Your task to perform on an android device: Clear all items from cart on amazon. Search for "apple airpods" on amazon, select the first entry, and add it to the cart. Image 0: 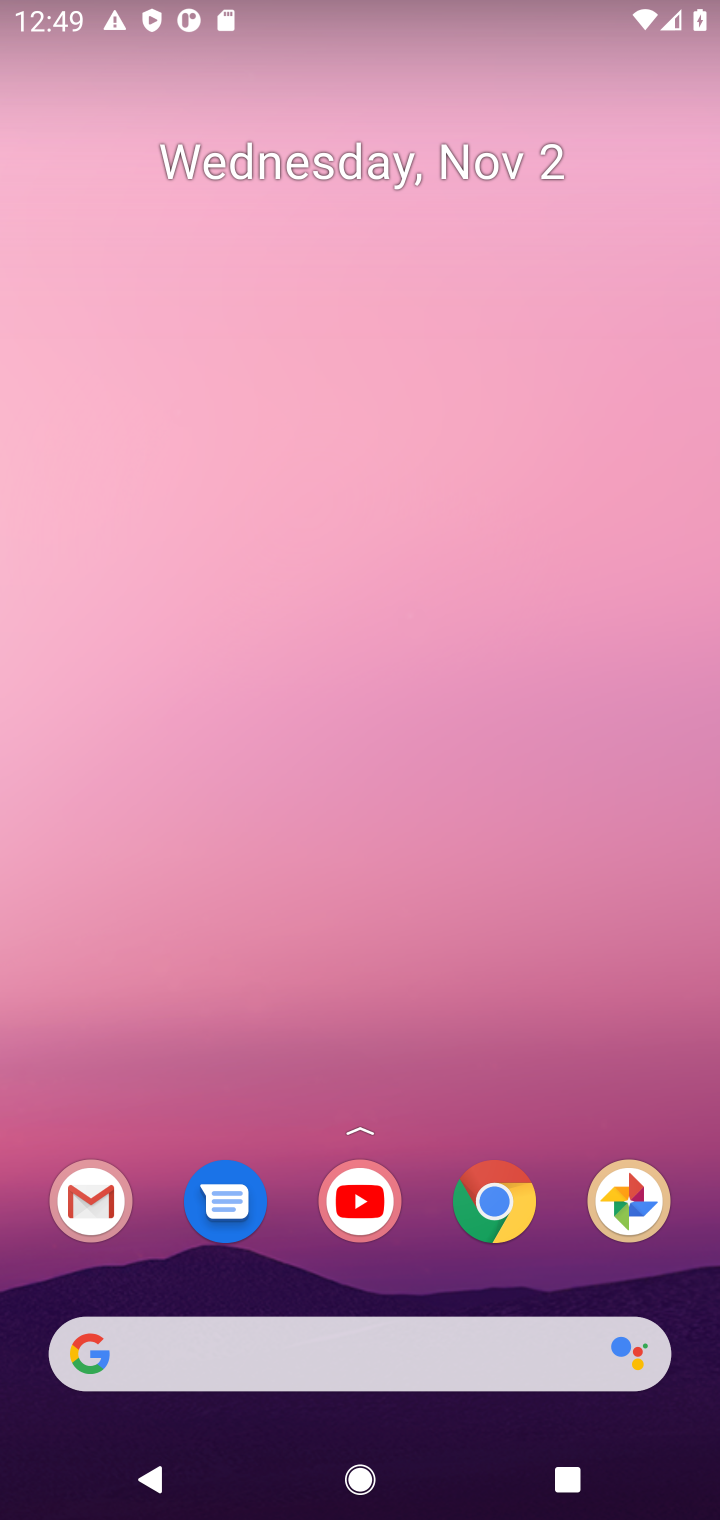
Step 0: drag from (332, 1070) to (338, 217)
Your task to perform on an android device: Clear all items from cart on amazon. Search for "apple airpods" on amazon, select the first entry, and add it to the cart. Image 1: 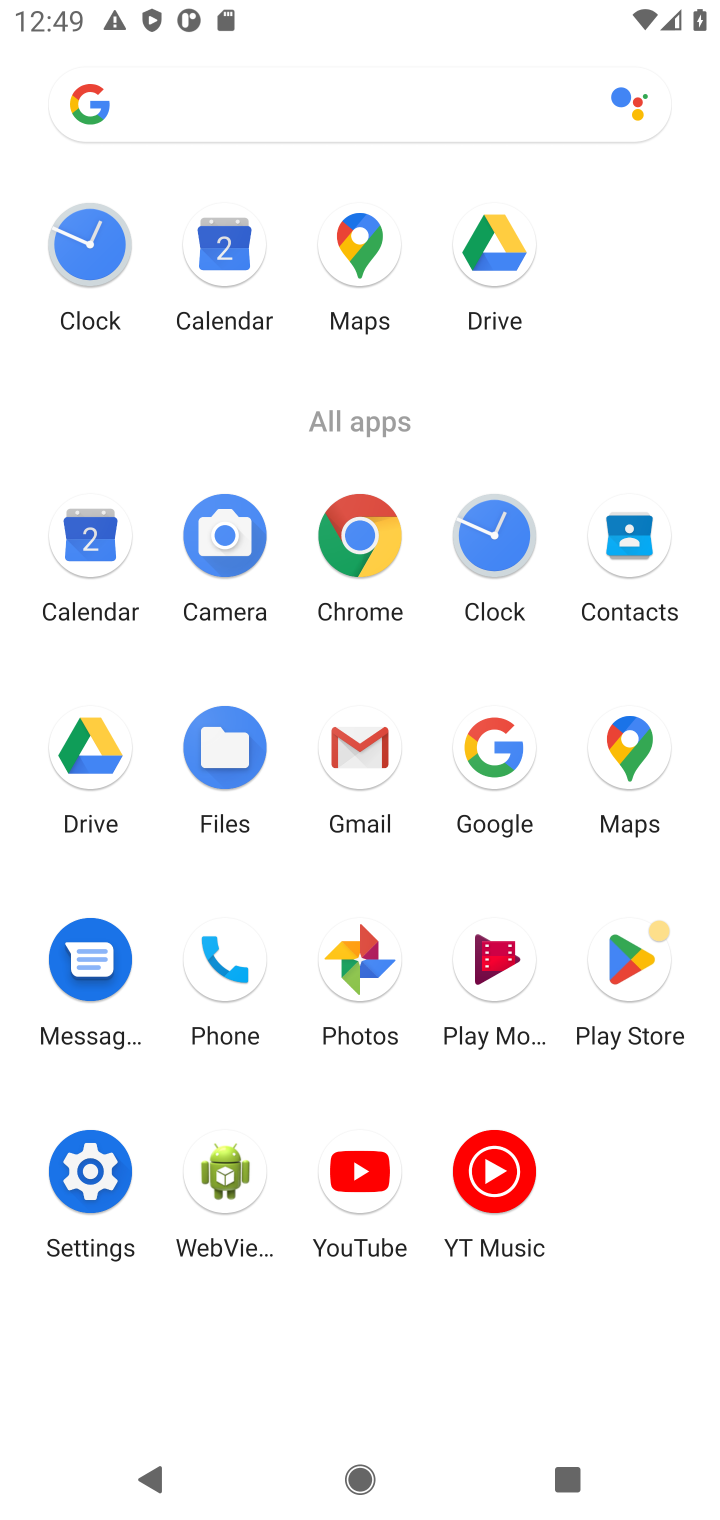
Step 1: click (470, 769)
Your task to perform on an android device: Clear all items from cart on amazon. Search for "apple airpods" on amazon, select the first entry, and add it to the cart. Image 2: 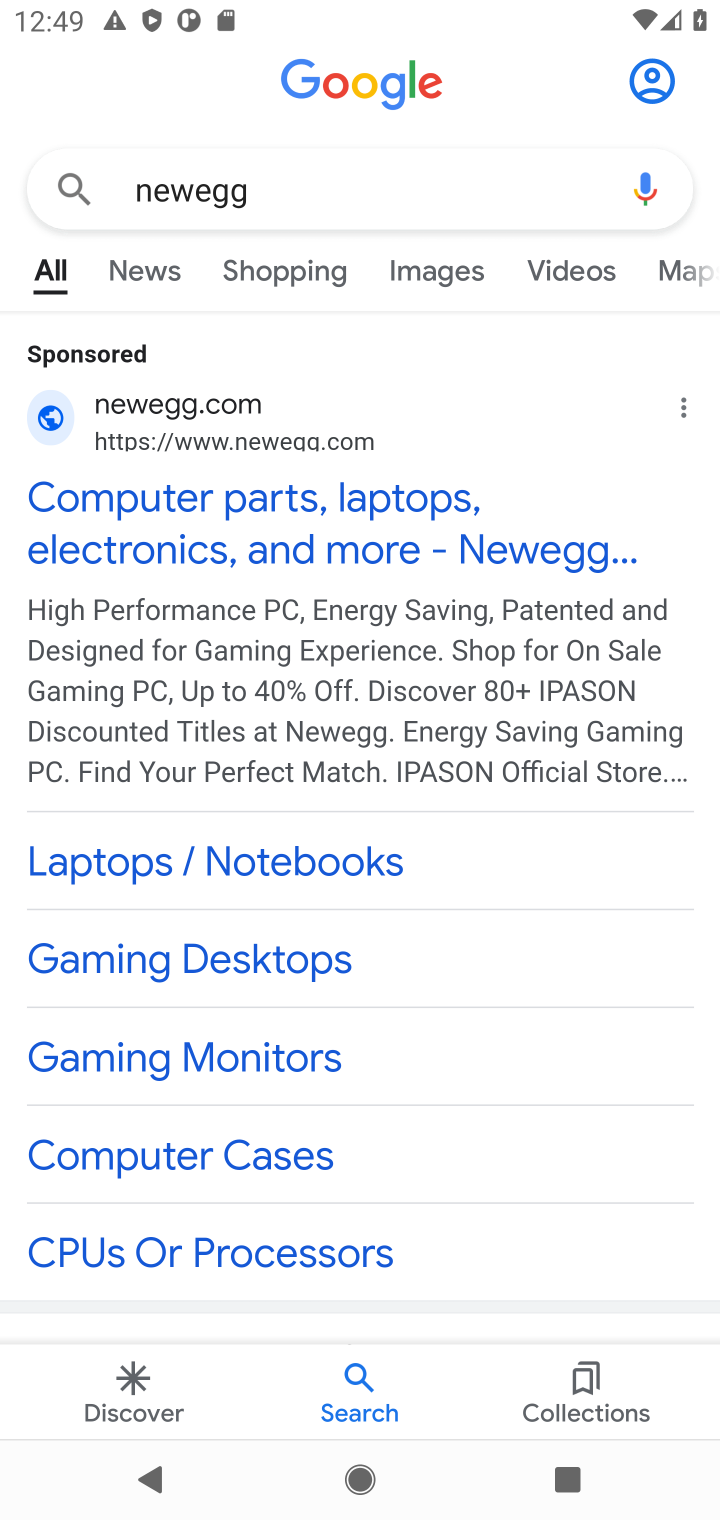
Step 2: click (278, 191)
Your task to perform on an android device: Clear all items from cart on amazon. Search for "apple airpods" on amazon, select the first entry, and add it to the cart. Image 3: 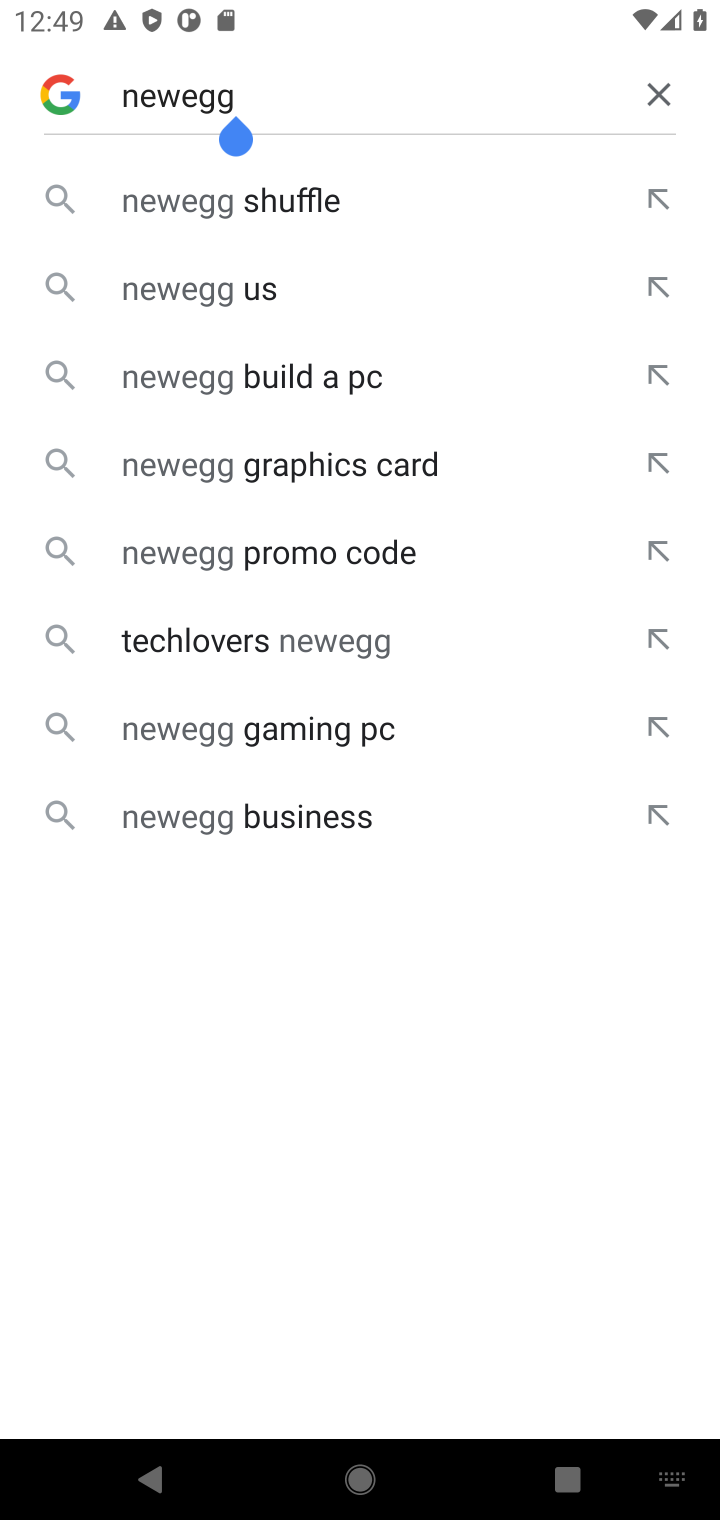
Step 3: click (657, 104)
Your task to perform on an android device: Clear all items from cart on amazon. Search for "apple airpods" on amazon, select the first entry, and add it to the cart. Image 4: 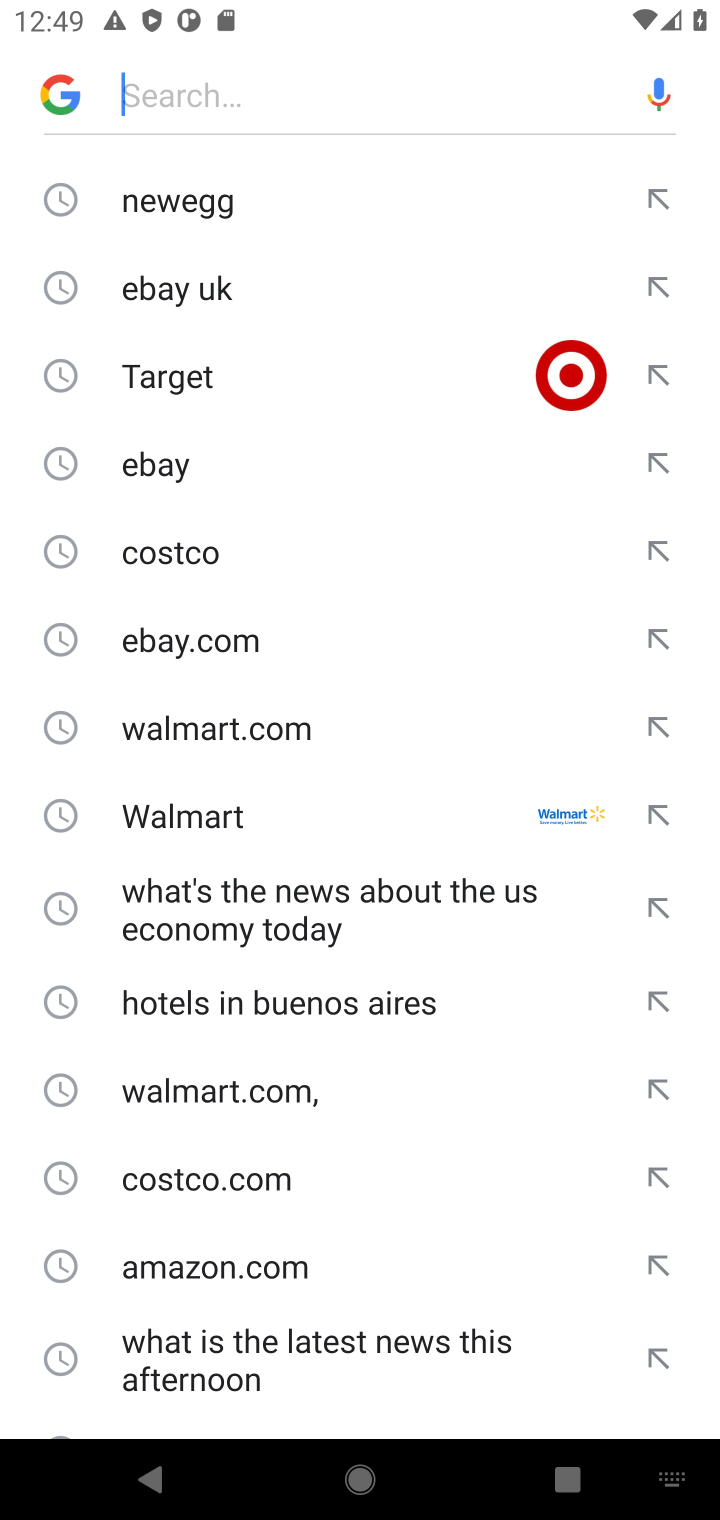
Step 4: click (196, 1275)
Your task to perform on an android device: Clear all items from cart on amazon. Search for "apple airpods" on amazon, select the first entry, and add it to the cart. Image 5: 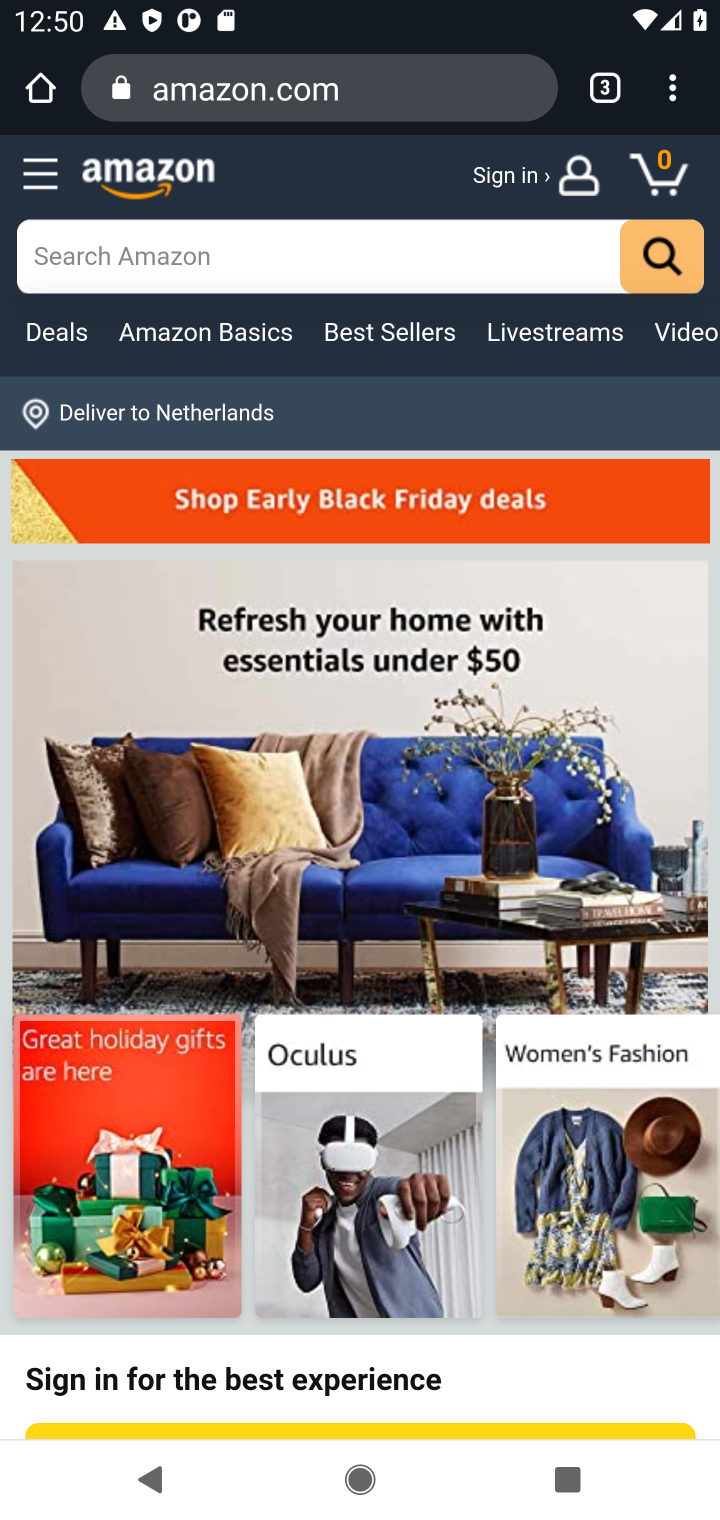
Step 5: click (162, 247)
Your task to perform on an android device: Clear all items from cart on amazon. Search for "apple airpods" on amazon, select the first entry, and add it to the cart. Image 6: 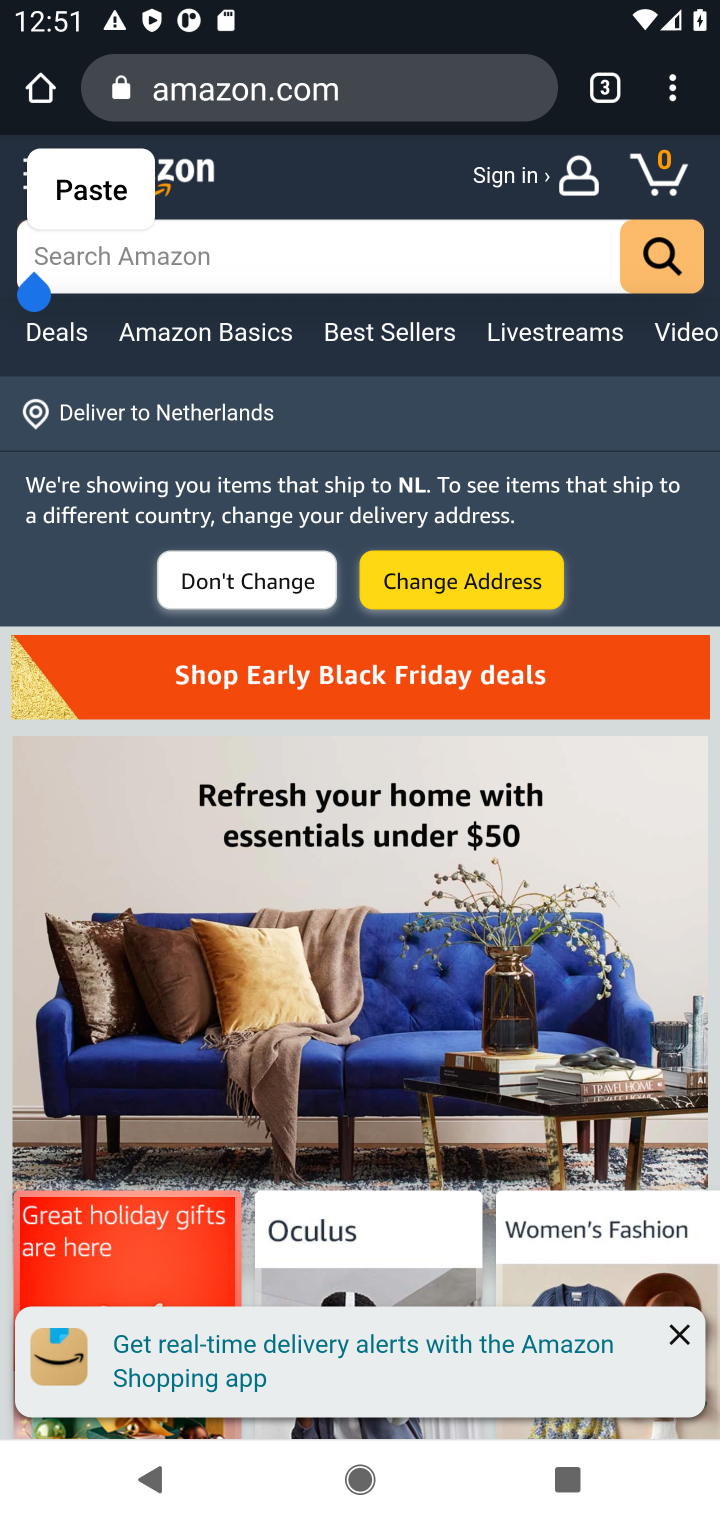
Step 6: click (93, 253)
Your task to perform on an android device: Clear all items from cart on amazon. Search for "apple airpods" on amazon, select the first entry, and add it to the cart. Image 7: 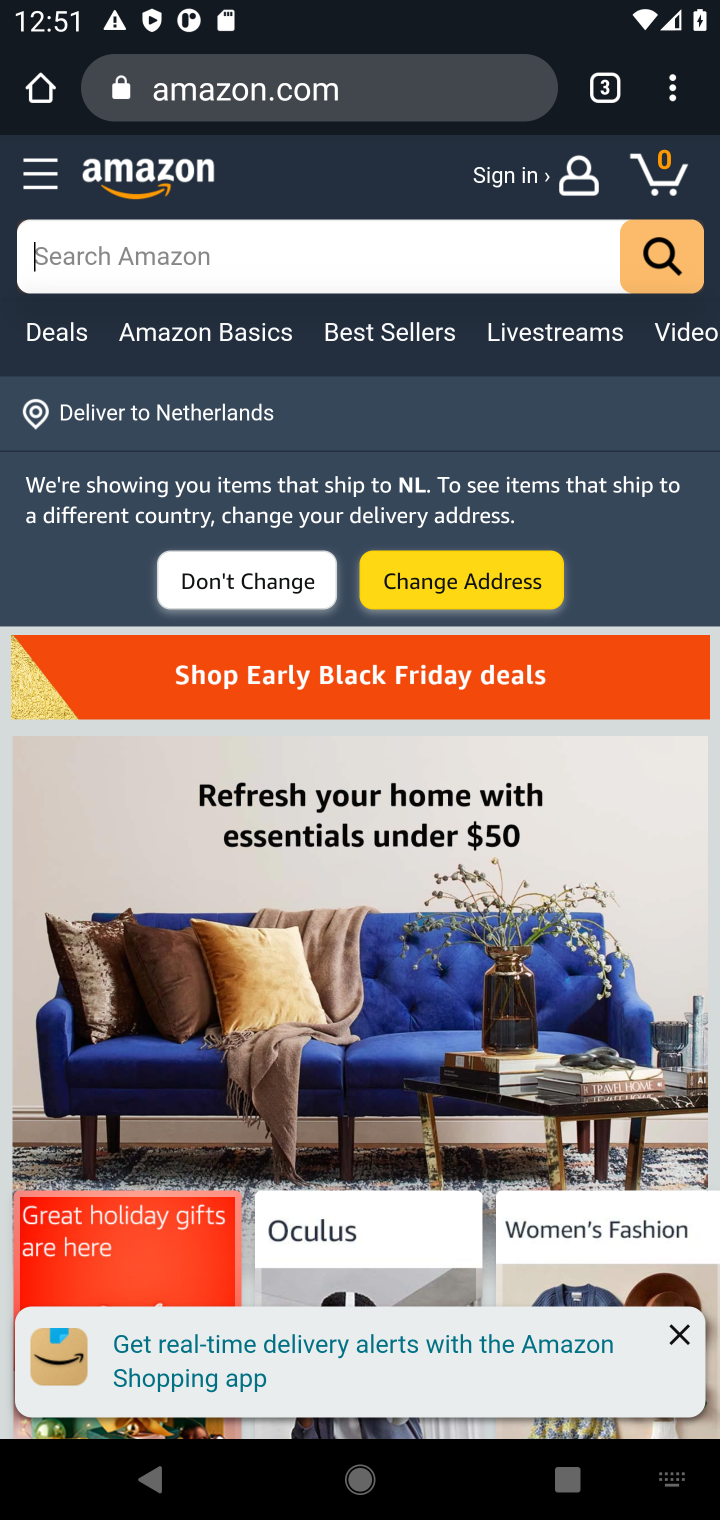
Step 7: type "apple airpods"
Your task to perform on an android device: Clear all items from cart on amazon. Search for "apple airpods" on amazon, select the first entry, and add it to the cart. Image 8: 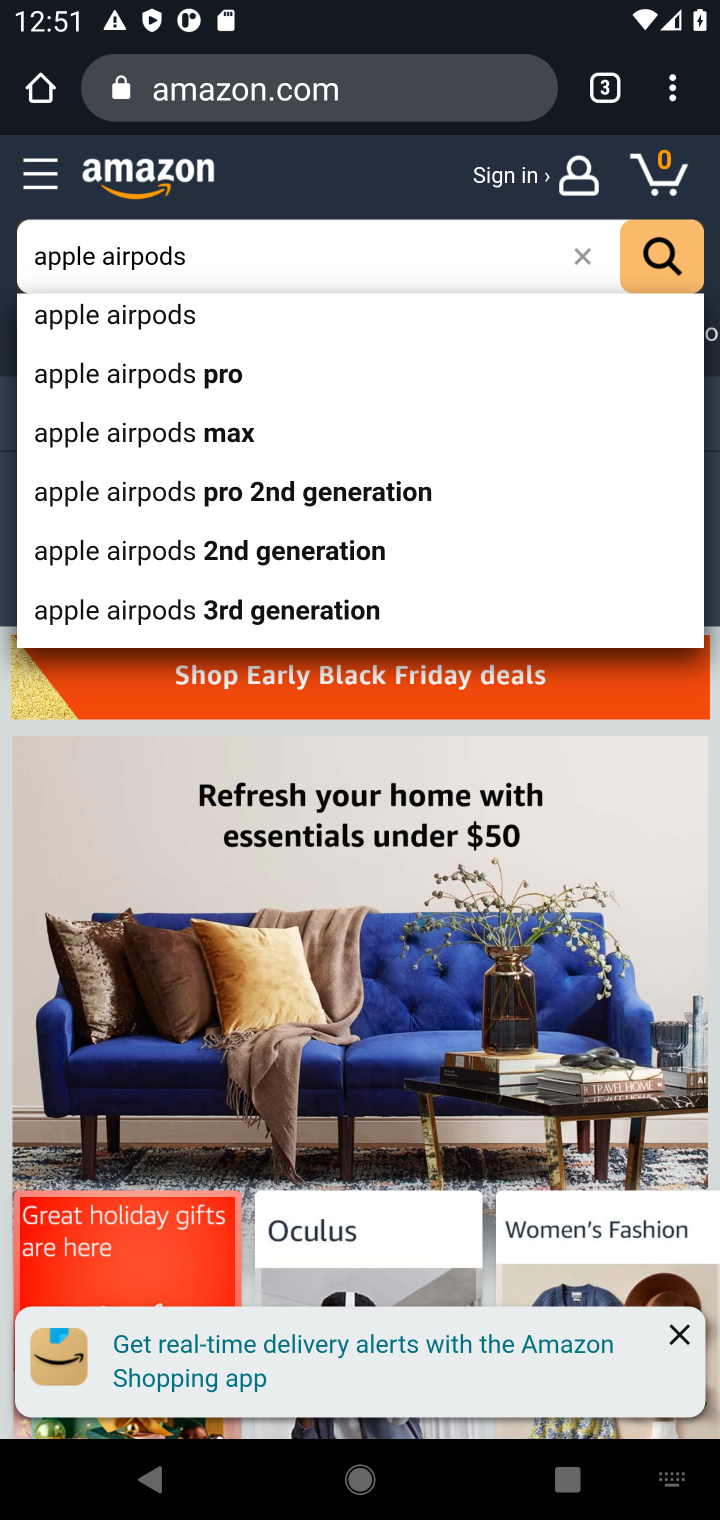
Step 8: click (151, 331)
Your task to perform on an android device: Clear all items from cart on amazon. Search for "apple airpods" on amazon, select the first entry, and add it to the cart. Image 9: 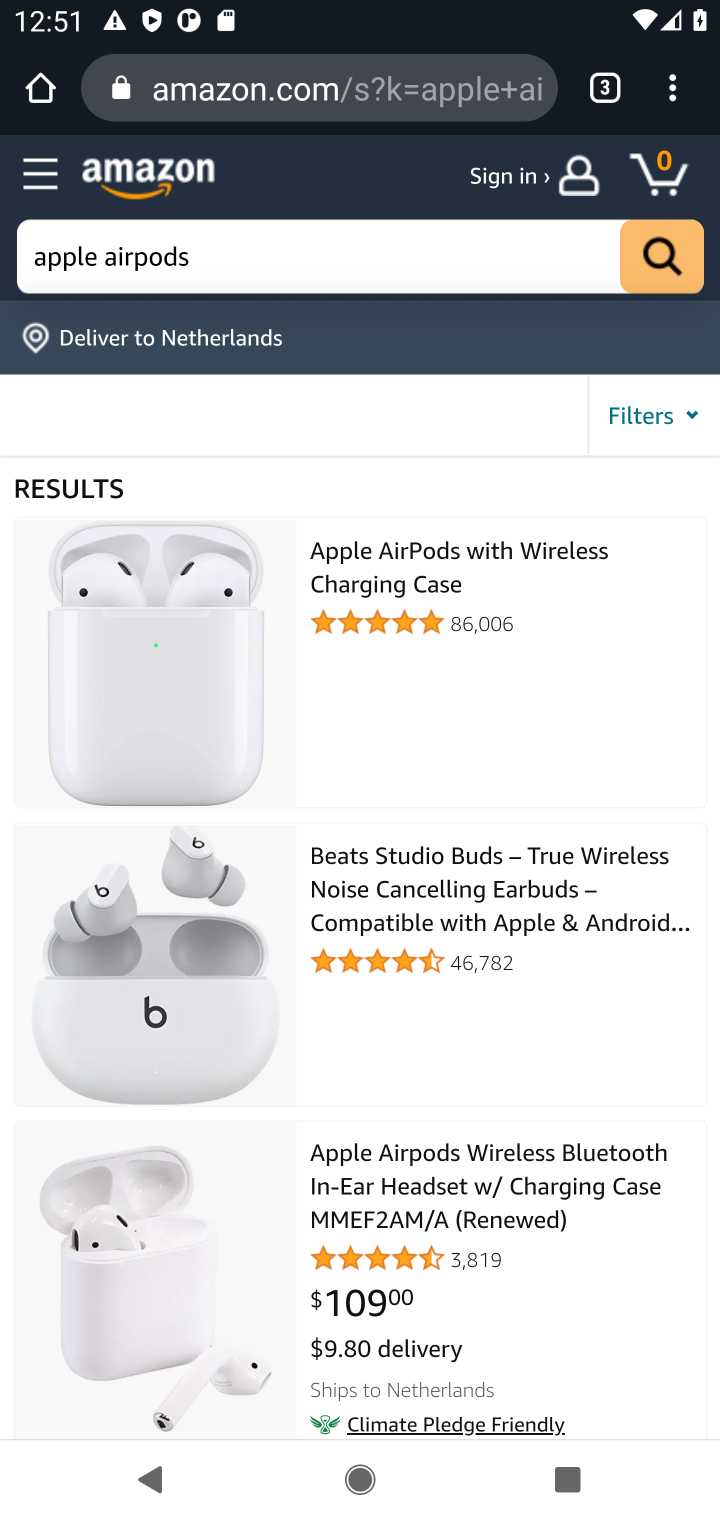
Step 9: click (117, 705)
Your task to perform on an android device: Clear all items from cart on amazon. Search for "apple airpods" on amazon, select the first entry, and add it to the cart. Image 10: 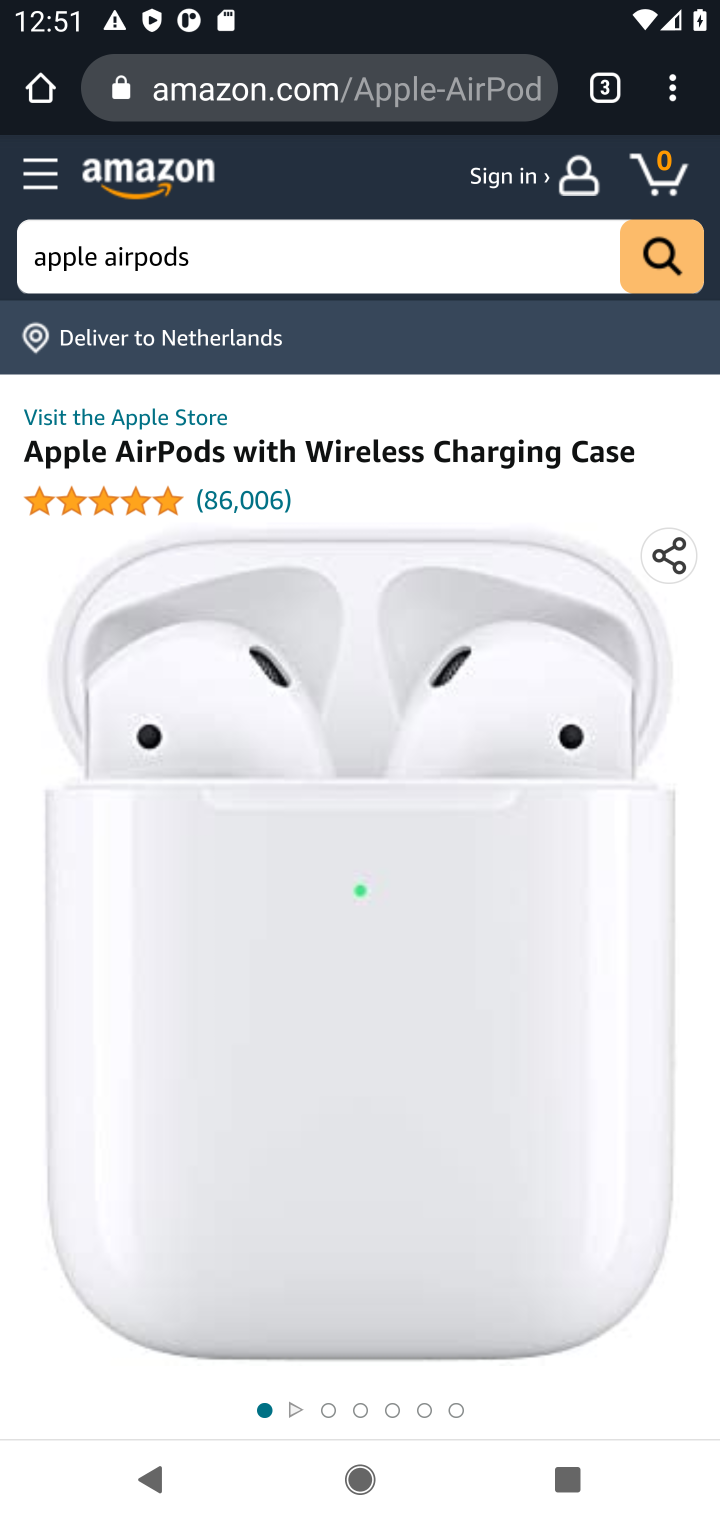
Step 10: drag from (371, 1317) to (308, 436)
Your task to perform on an android device: Clear all items from cart on amazon. Search for "apple airpods" on amazon, select the first entry, and add it to the cart. Image 11: 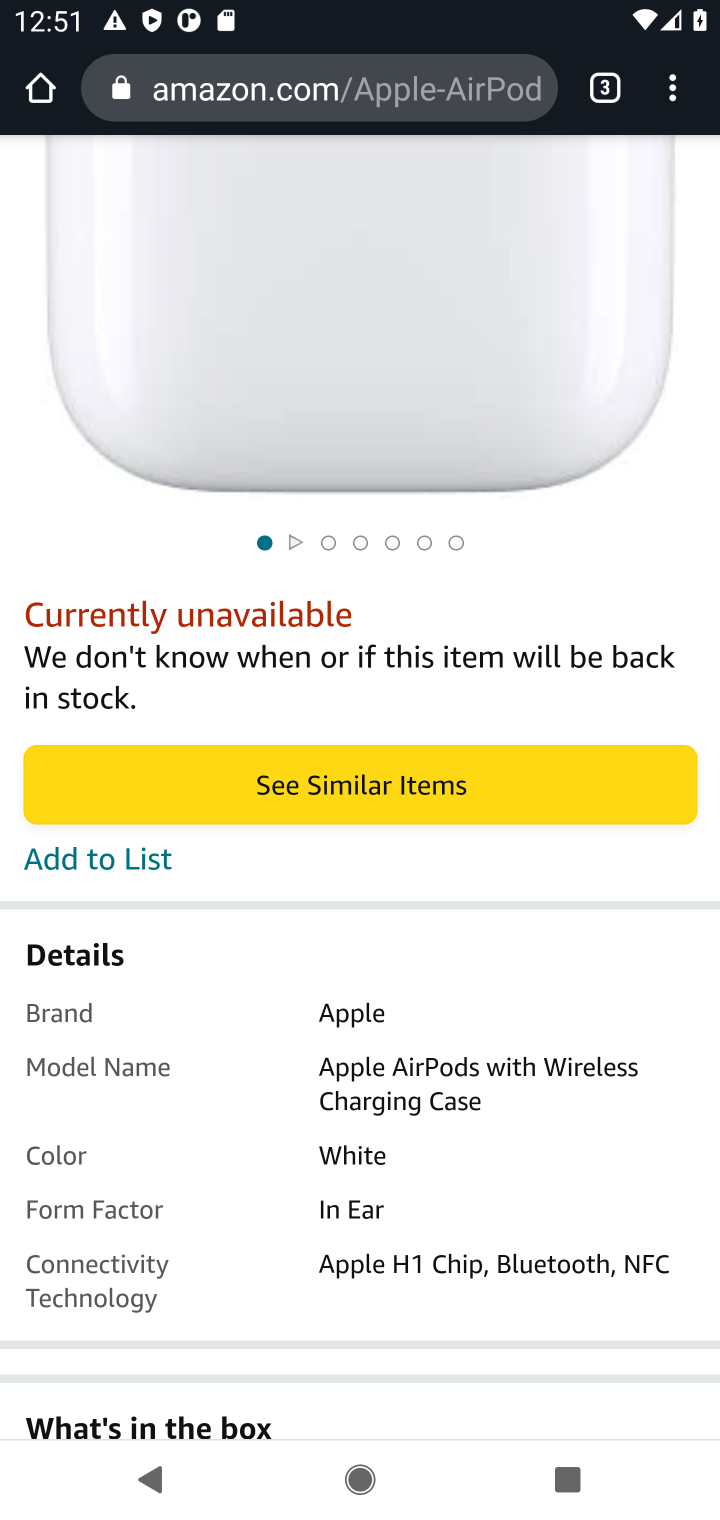
Step 11: drag from (334, 974) to (343, 597)
Your task to perform on an android device: Clear all items from cart on amazon. Search for "apple airpods" on amazon, select the first entry, and add it to the cart. Image 12: 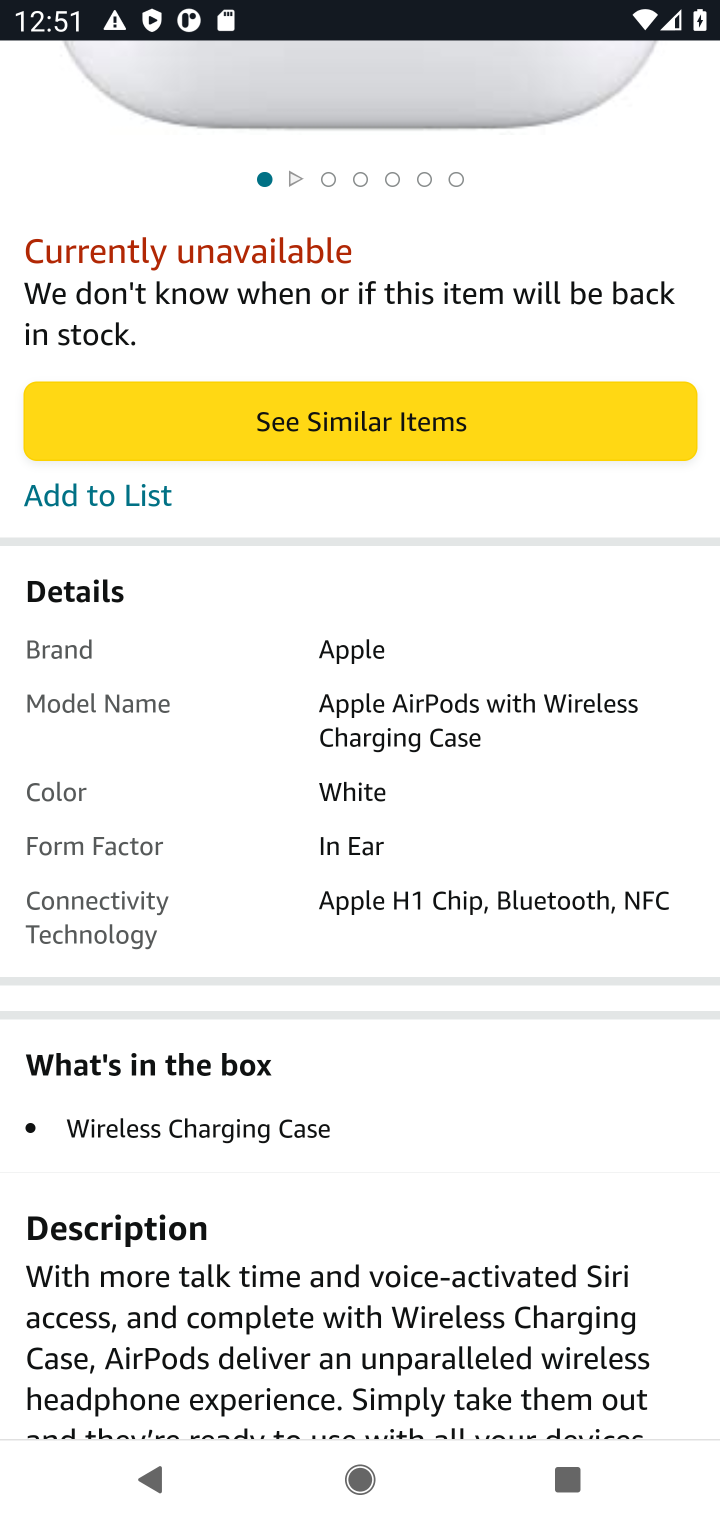
Step 12: drag from (105, 382) to (188, 863)
Your task to perform on an android device: Clear all items from cart on amazon. Search for "apple airpods" on amazon, select the first entry, and add it to the cart. Image 13: 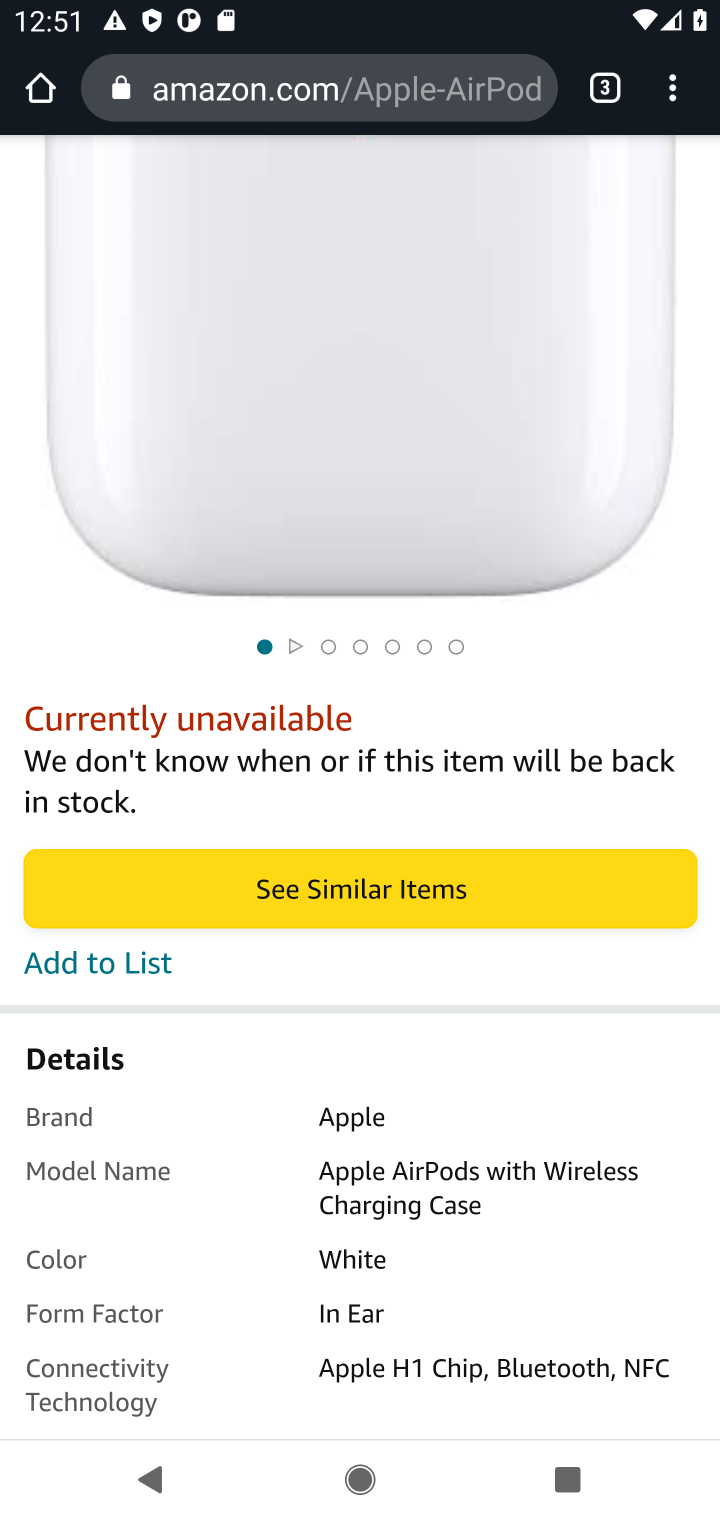
Step 13: drag from (263, 310) to (426, 1128)
Your task to perform on an android device: Clear all items from cart on amazon. Search for "apple airpods" on amazon, select the first entry, and add it to the cart. Image 14: 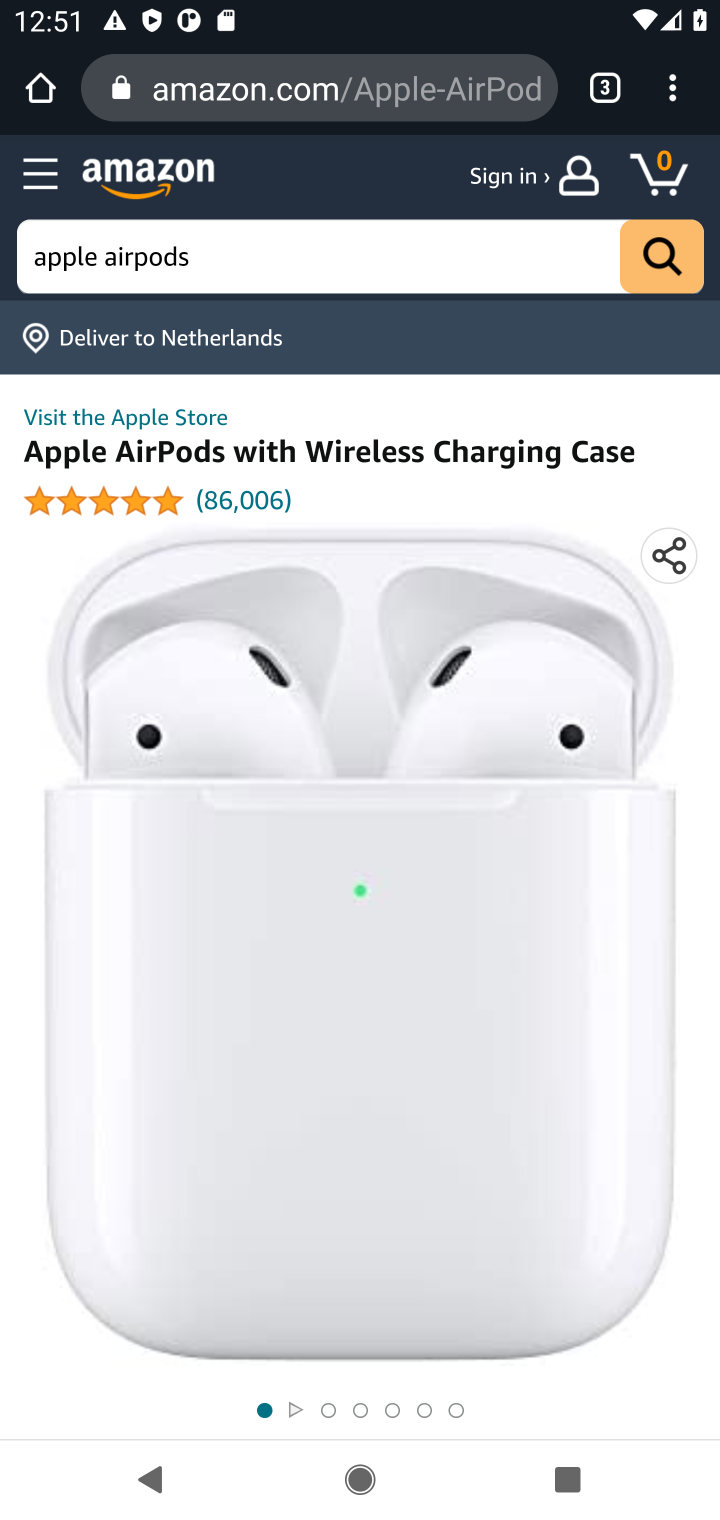
Step 14: press back button
Your task to perform on an android device: Clear all items from cart on amazon. Search for "apple airpods" on amazon, select the first entry, and add it to the cart. Image 15: 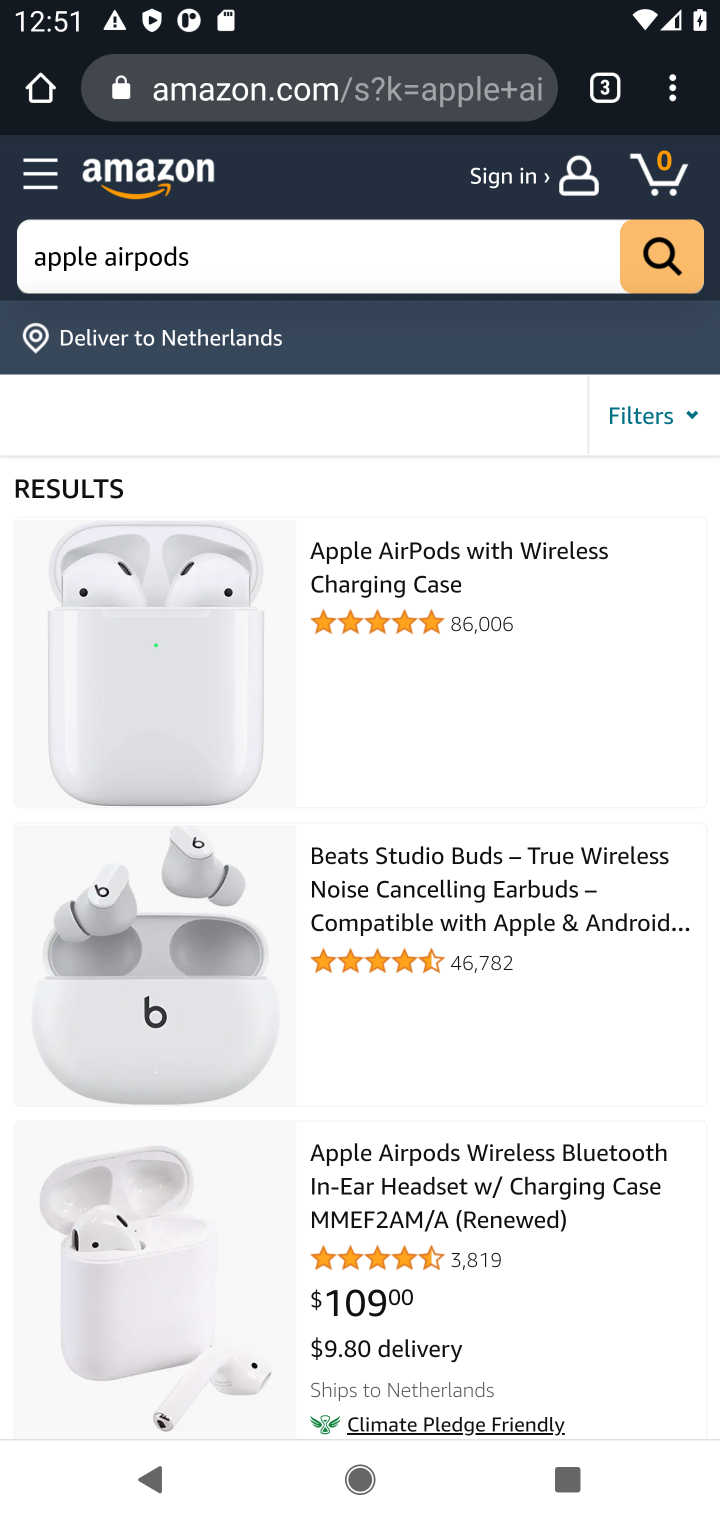
Step 15: click (486, 935)
Your task to perform on an android device: Clear all items from cart on amazon. Search for "apple airpods" on amazon, select the first entry, and add it to the cart. Image 16: 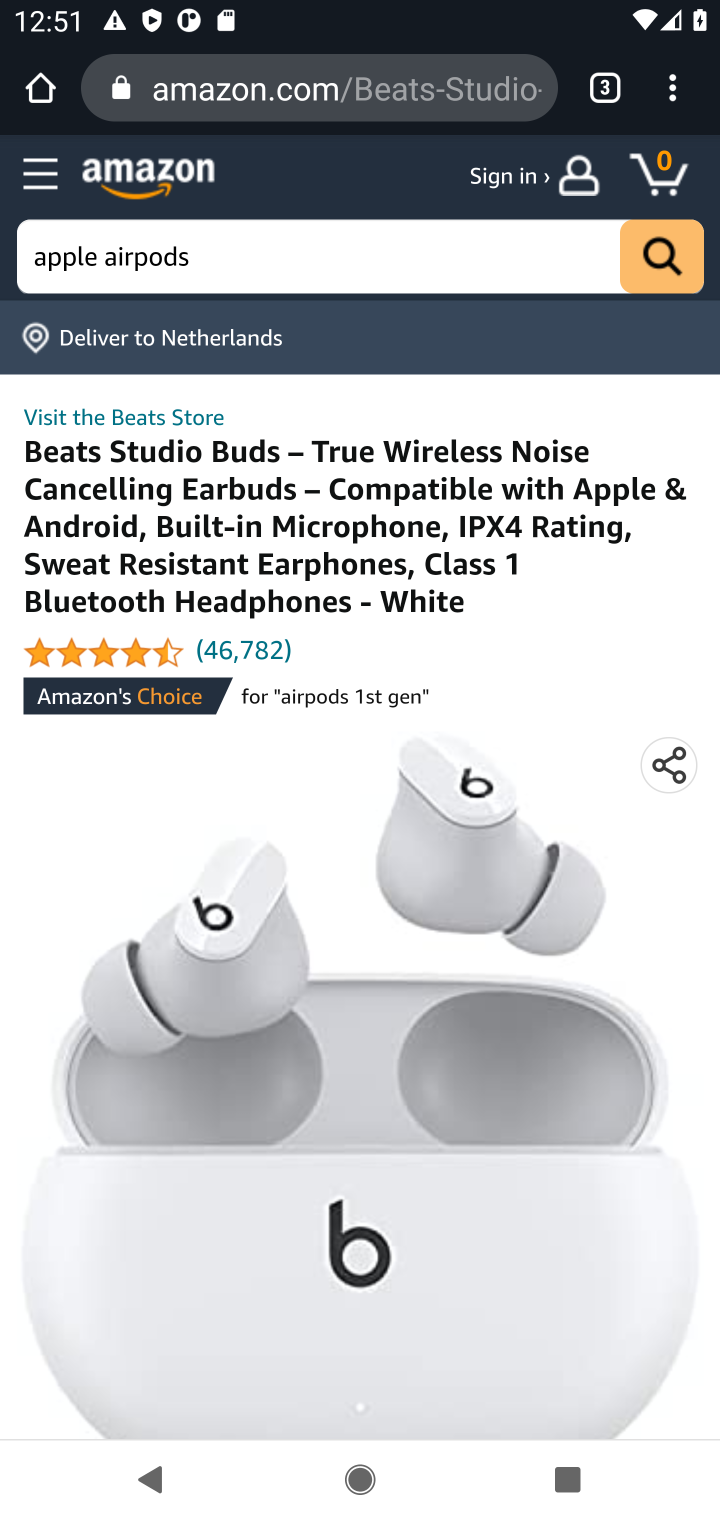
Step 16: task complete